Your task to perform on an android device: change alarm snooze length Image 0: 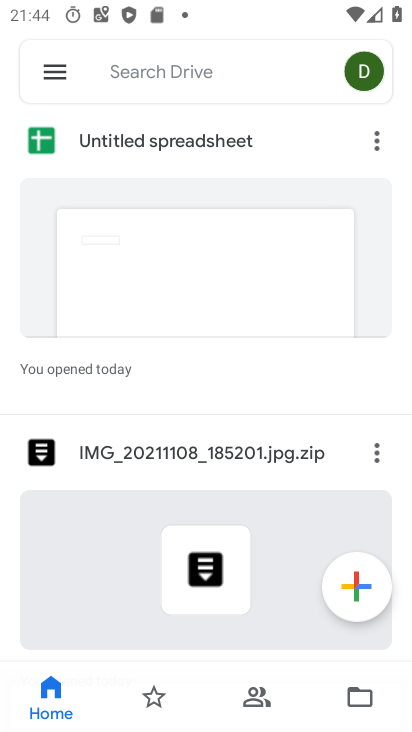
Step 0: press home button
Your task to perform on an android device: change alarm snooze length Image 1: 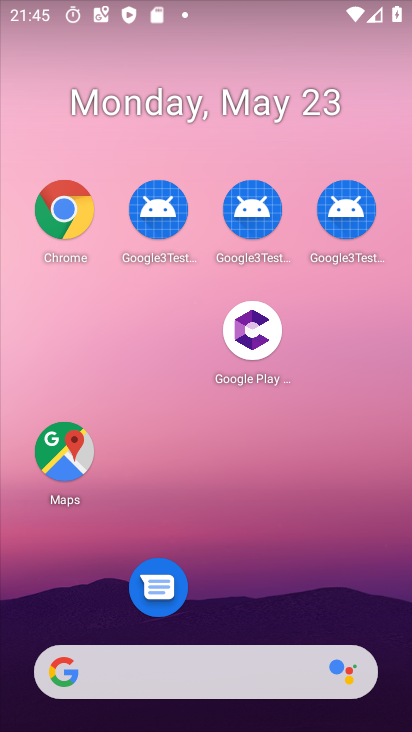
Step 1: drag from (281, 600) to (238, 4)
Your task to perform on an android device: change alarm snooze length Image 2: 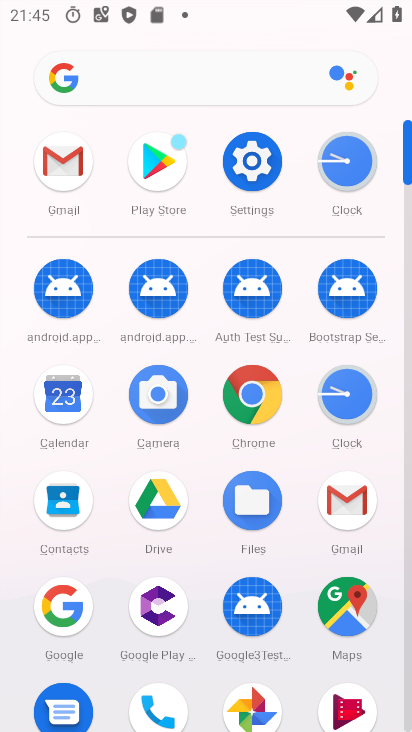
Step 2: click (243, 174)
Your task to perform on an android device: change alarm snooze length Image 3: 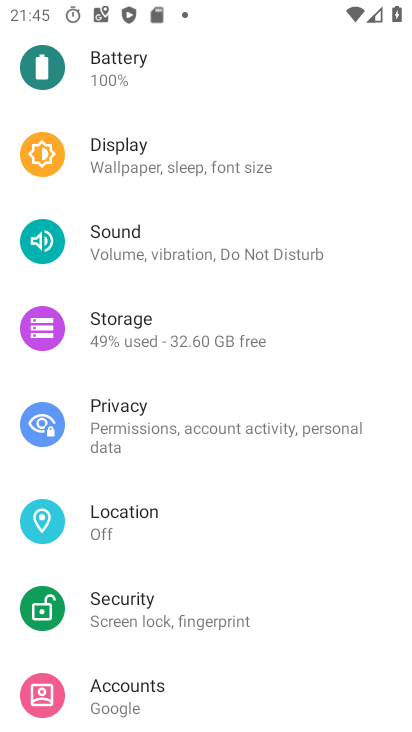
Step 3: press back button
Your task to perform on an android device: change alarm snooze length Image 4: 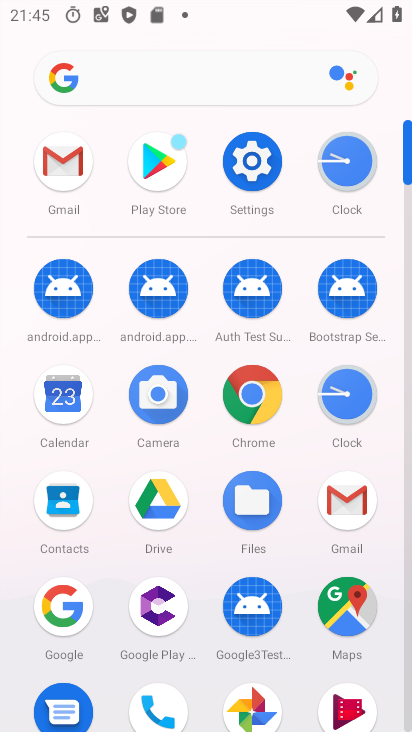
Step 4: click (330, 161)
Your task to perform on an android device: change alarm snooze length Image 5: 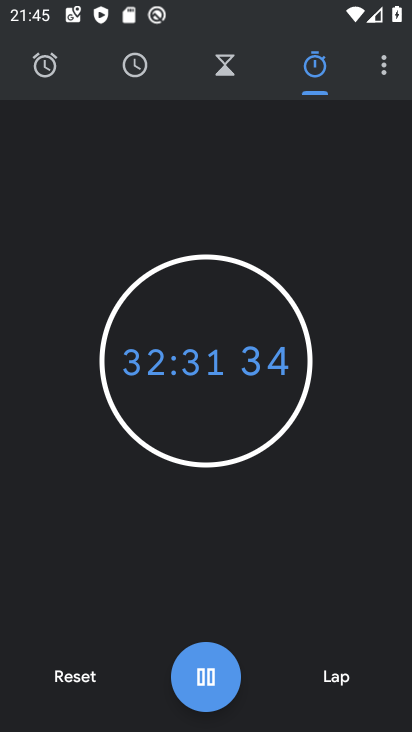
Step 5: click (385, 76)
Your task to perform on an android device: change alarm snooze length Image 6: 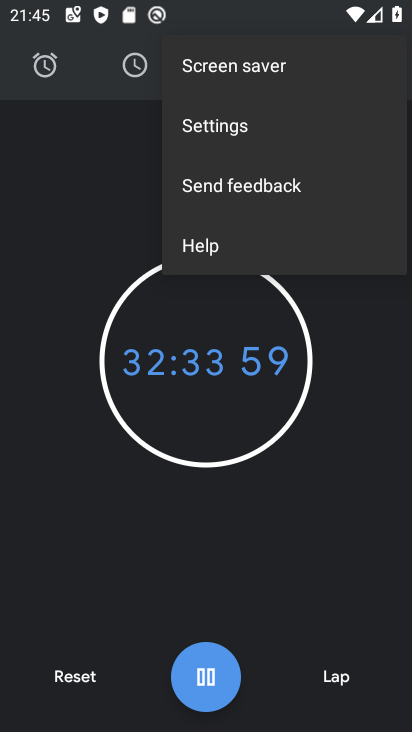
Step 6: click (214, 125)
Your task to perform on an android device: change alarm snooze length Image 7: 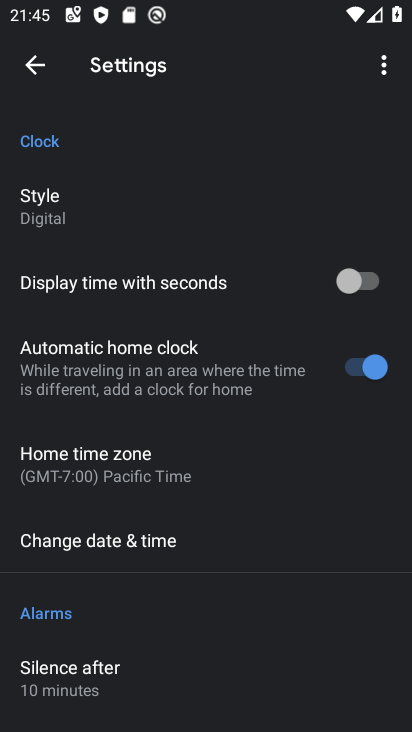
Step 7: drag from (248, 604) to (234, 136)
Your task to perform on an android device: change alarm snooze length Image 8: 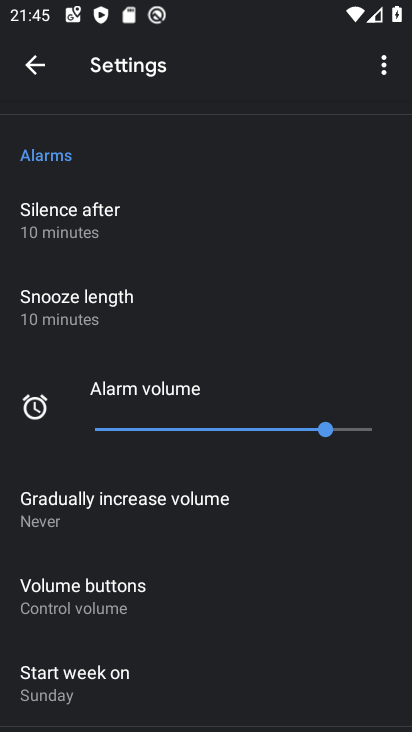
Step 8: drag from (169, 680) to (160, 76)
Your task to perform on an android device: change alarm snooze length Image 9: 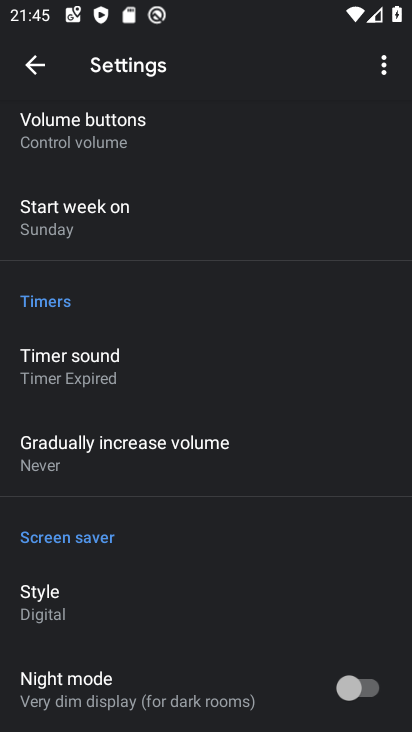
Step 9: drag from (141, 229) to (166, 695)
Your task to perform on an android device: change alarm snooze length Image 10: 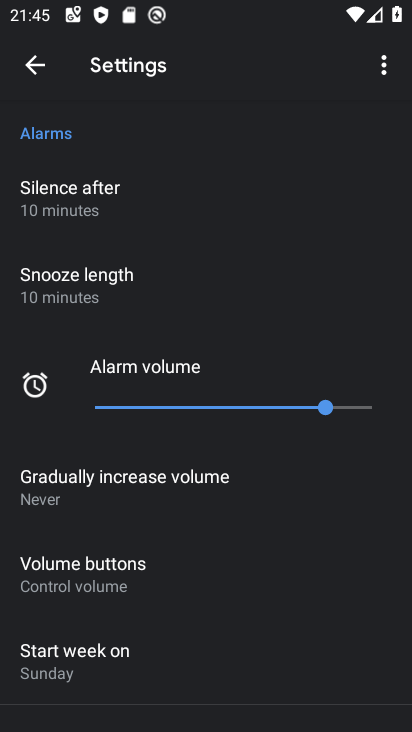
Step 10: click (88, 284)
Your task to perform on an android device: change alarm snooze length Image 11: 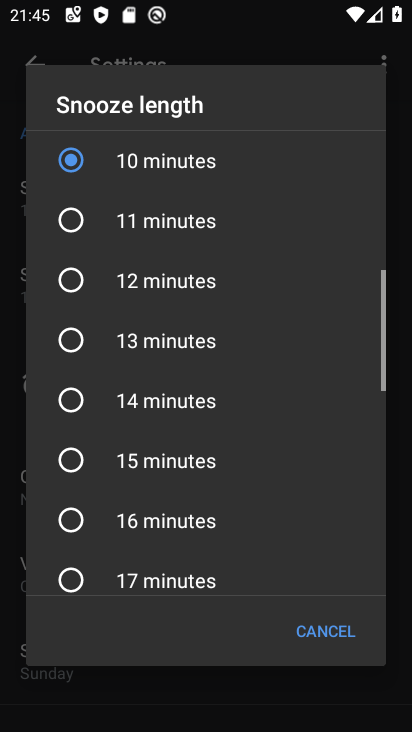
Step 11: click (197, 277)
Your task to perform on an android device: change alarm snooze length Image 12: 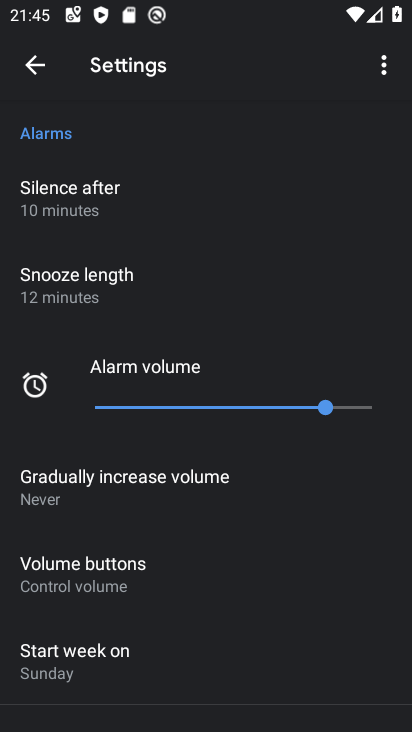
Step 12: task complete